Your task to perform on an android device: turn on wifi Image 0: 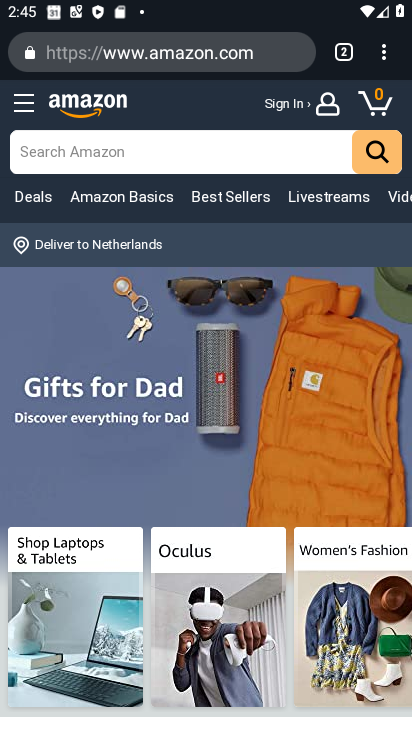
Step 0: press home button
Your task to perform on an android device: turn on wifi Image 1: 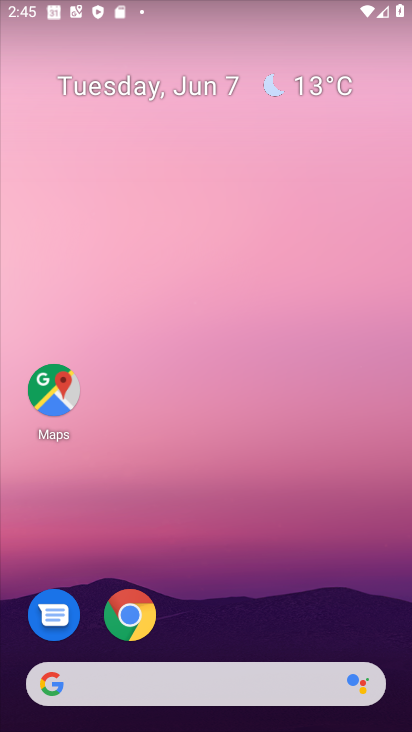
Step 1: drag from (230, 621) to (271, 124)
Your task to perform on an android device: turn on wifi Image 2: 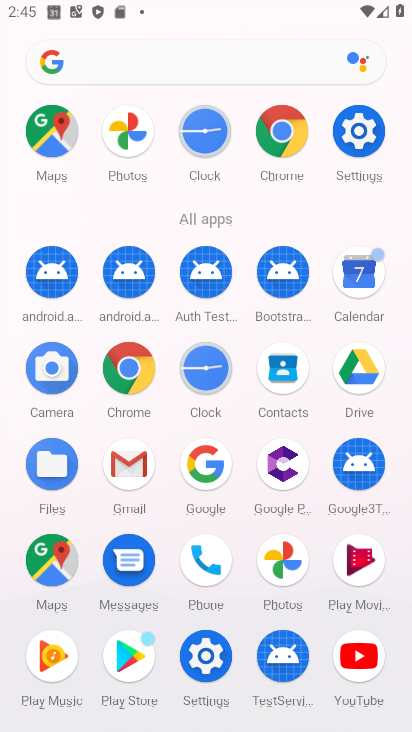
Step 2: click (211, 656)
Your task to perform on an android device: turn on wifi Image 3: 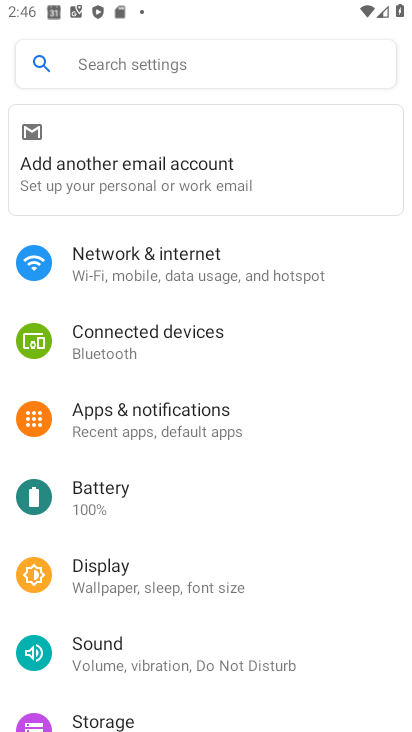
Step 3: click (198, 276)
Your task to perform on an android device: turn on wifi Image 4: 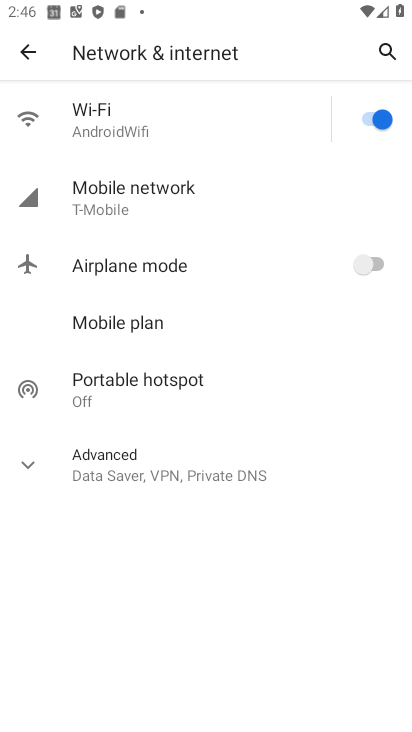
Step 4: task complete